Your task to perform on an android device: install app "Duolingo: language lessons" Image 0: 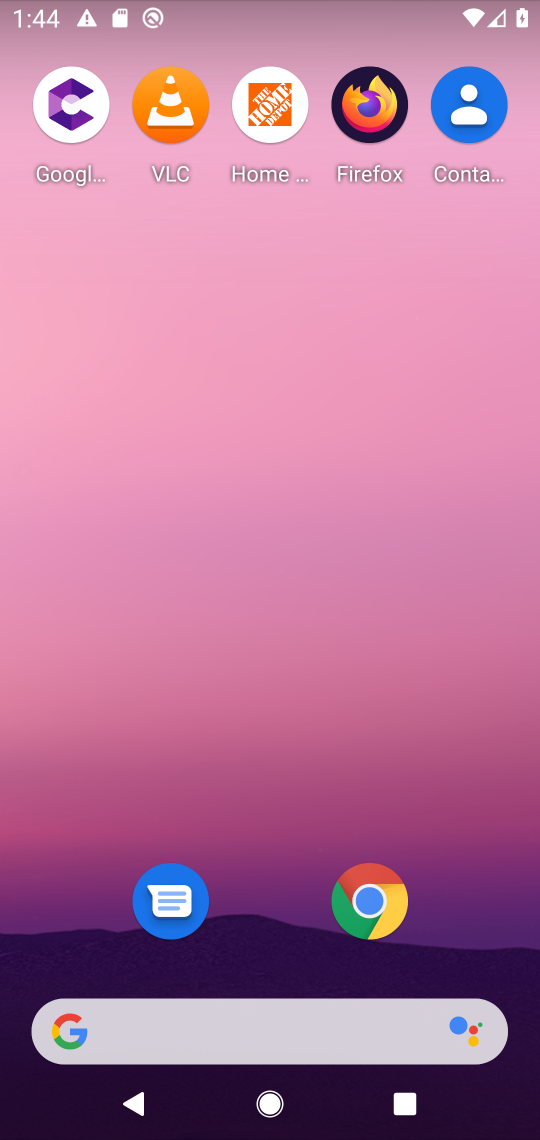
Step 0: drag from (293, 871) to (352, 34)
Your task to perform on an android device: install app "Duolingo: language lessons" Image 1: 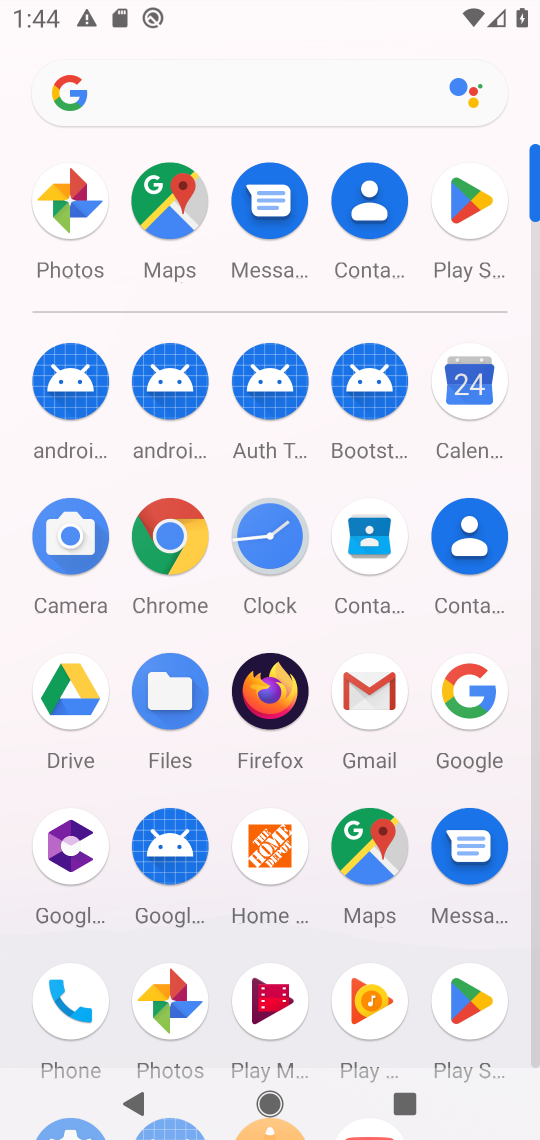
Step 1: click (474, 200)
Your task to perform on an android device: install app "Duolingo: language lessons" Image 2: 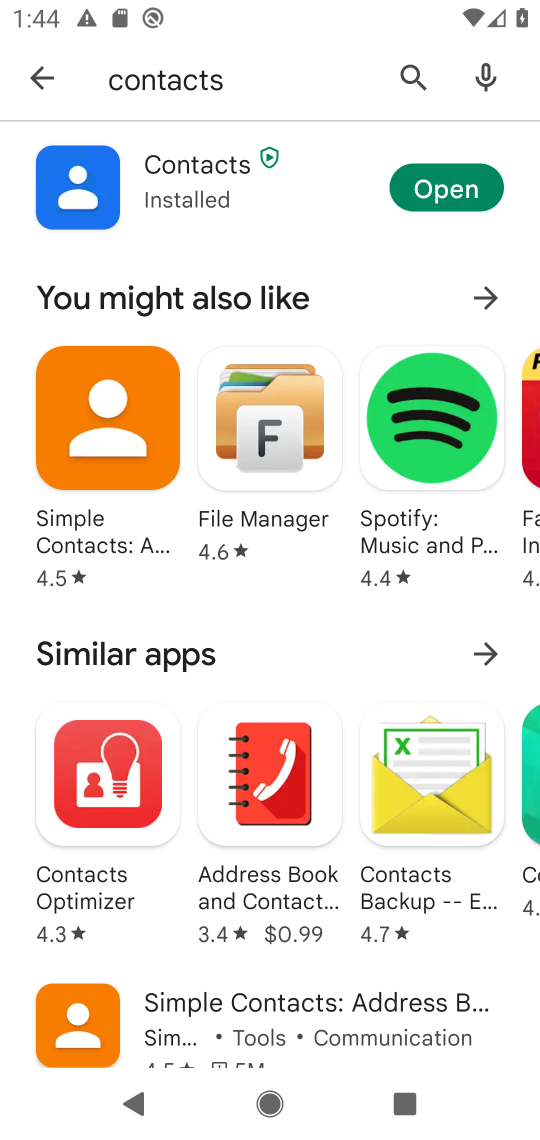
Step 2: click (397, 76)
Your task to perform on an android device: install app "Duolingo: language lessons" Image 3: 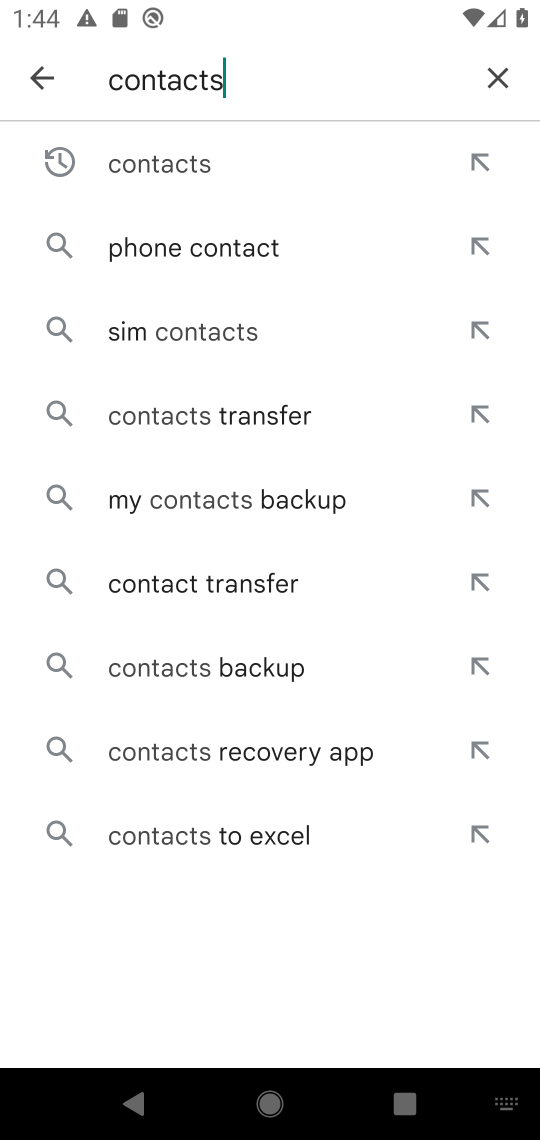
Step 3: click (510, 85)
Your task to perform on an android device: install app "Duolingo: language lessons" Image 4: 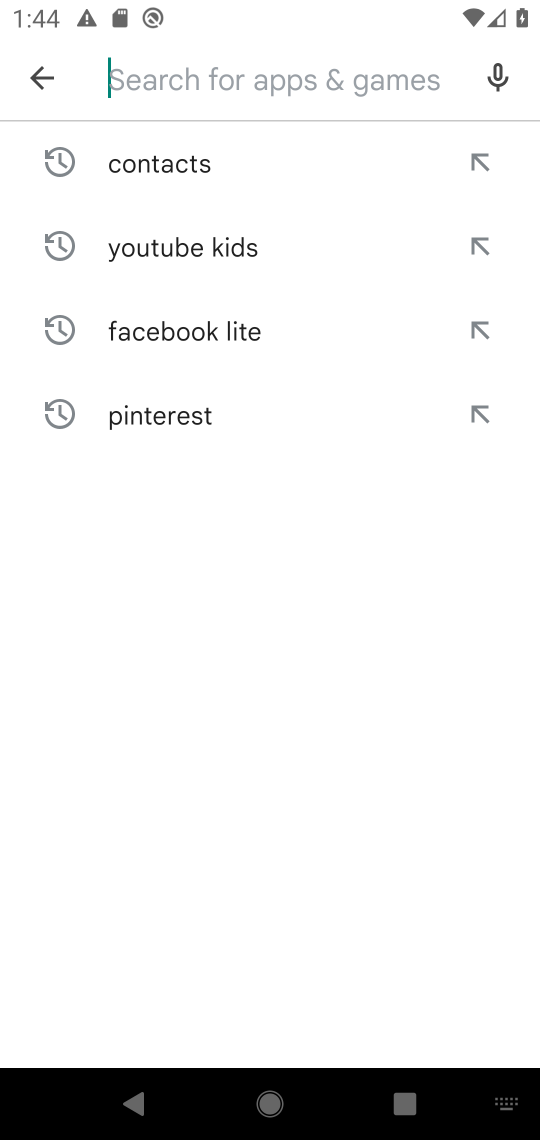
Step 4: click (261, 73)
Your task to perform on an android device: install app "Duolingo: language lessons" Image 5: 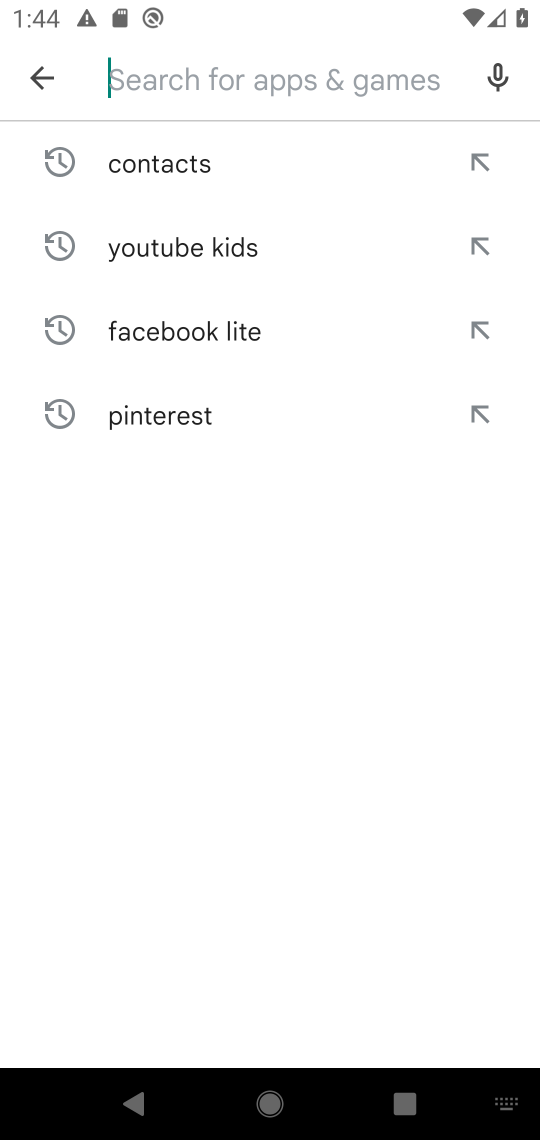
Step 5: type "Duolingo: language lessons"
Your task to perform on an android device: install app "Duolingo: language lessons" Image 6: 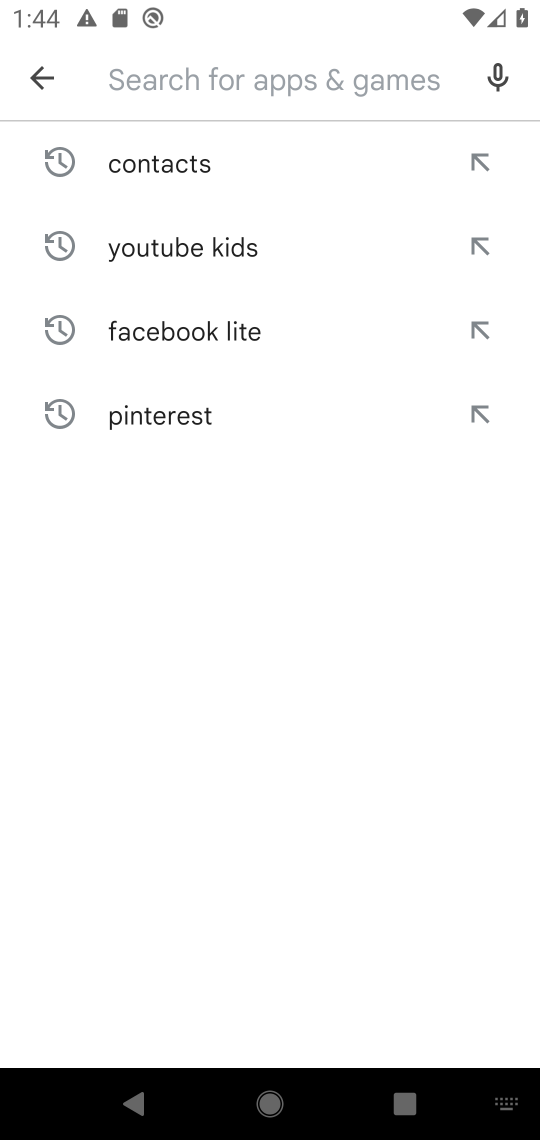
Step 6: click (371, 722)
Your task to perform on an android device: install app "Duolingo: language lessons" Image 7: 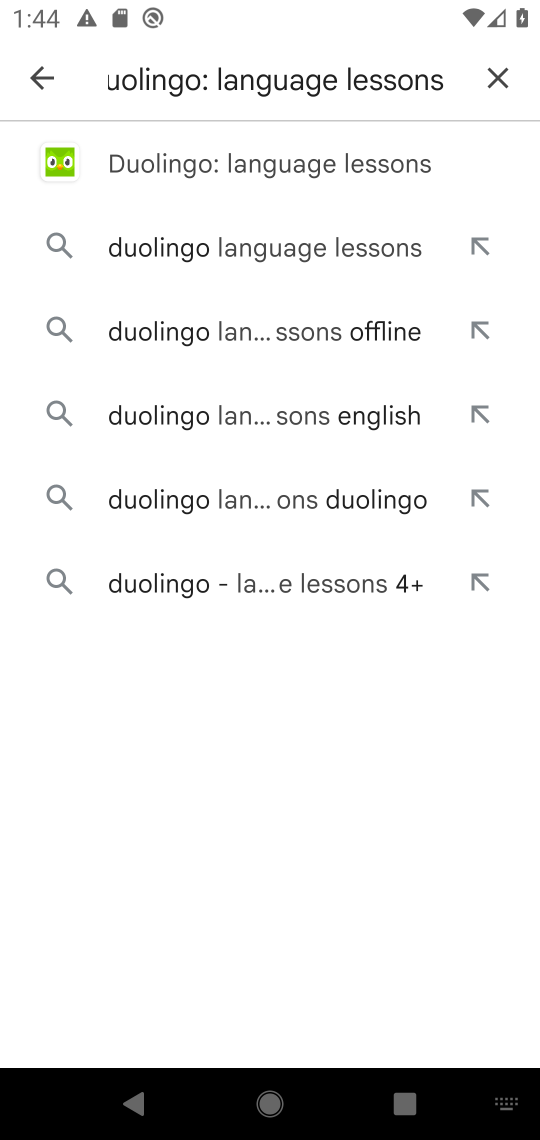
Step 7: click (243, 164)
Your task to perform on an android device: install app "Duolingo: language lessons" Image 8: 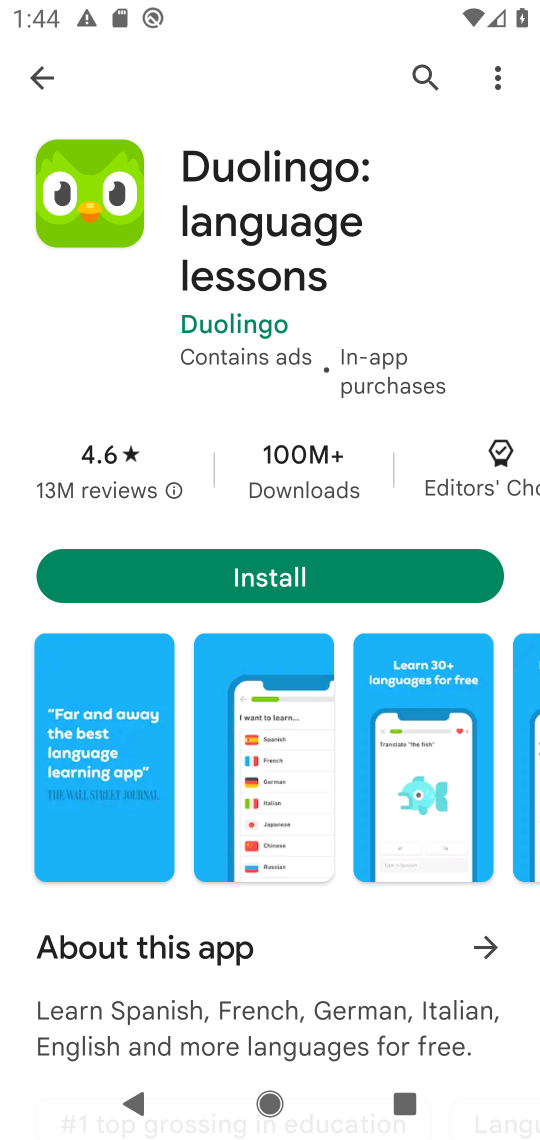
Step 8: click (247, 580)
Your task to perform on an android device: install app "Duolingo: language lessons" Image 9: 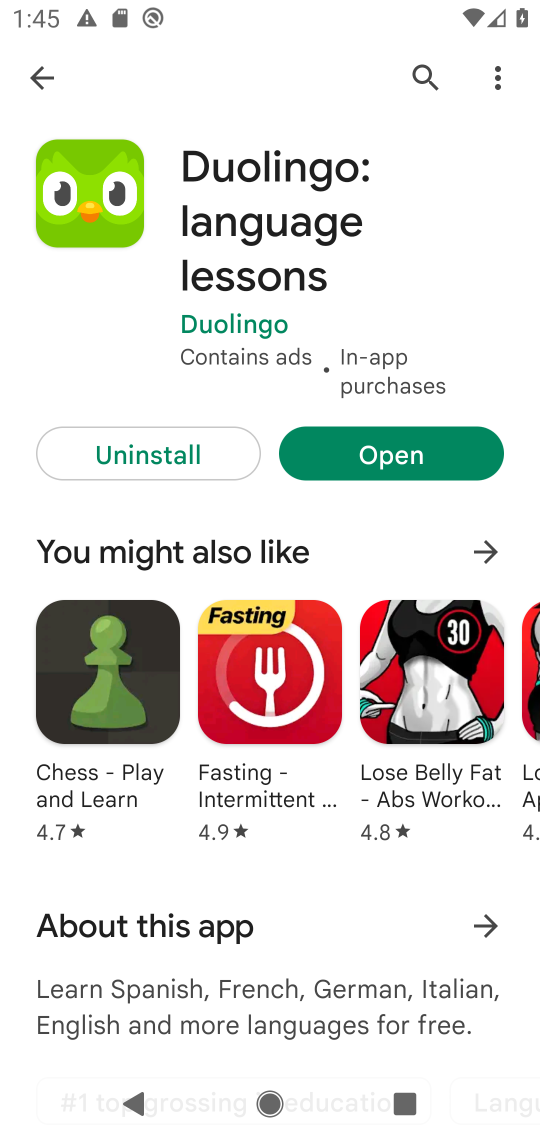
Step 9: task complete